Your task to perform on an android device: change notifications settings Image 0: 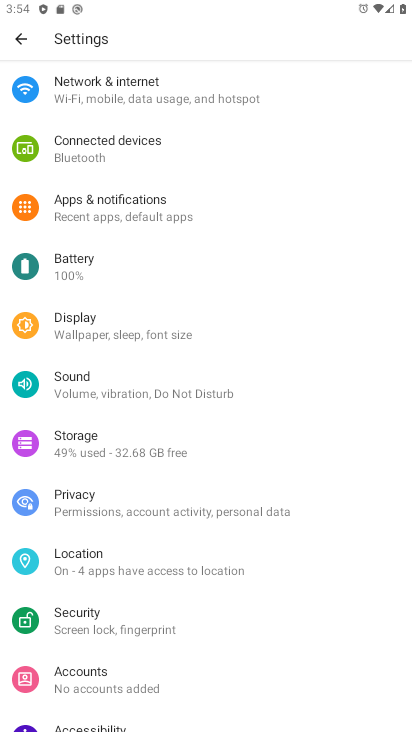
Step 0: press home button
Your task to perform on an android device: change notifications settings Image 1: 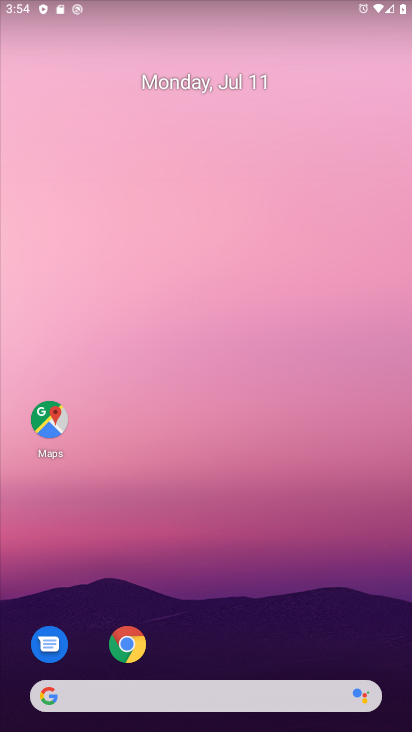
Step 1: drag from (246, 580) to (223, 156)
Your task to perform on an android device: change notifications settings Image 2: 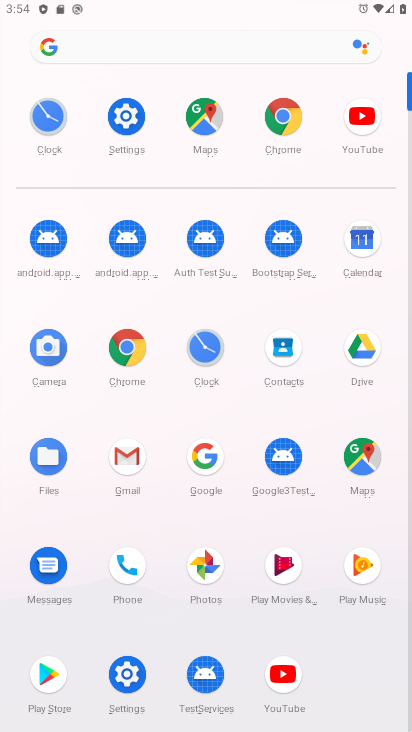
Step 2: click (130, 123)
Your task to perform on an android device: change notifications settings Image 3: 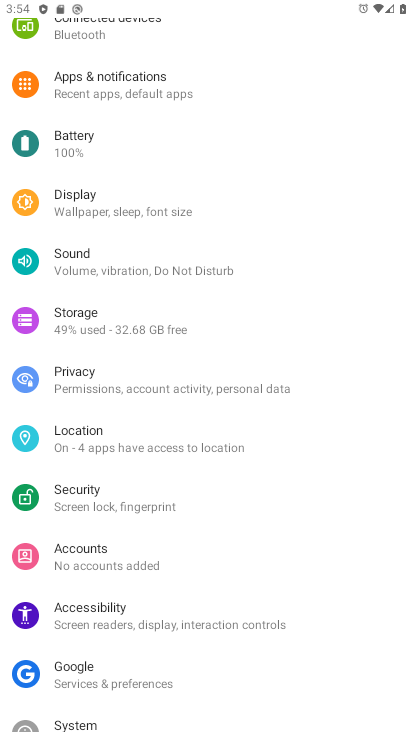
Step 3: click (128, 82)
Your task to perform on an android device: change notifications settings Image 4: 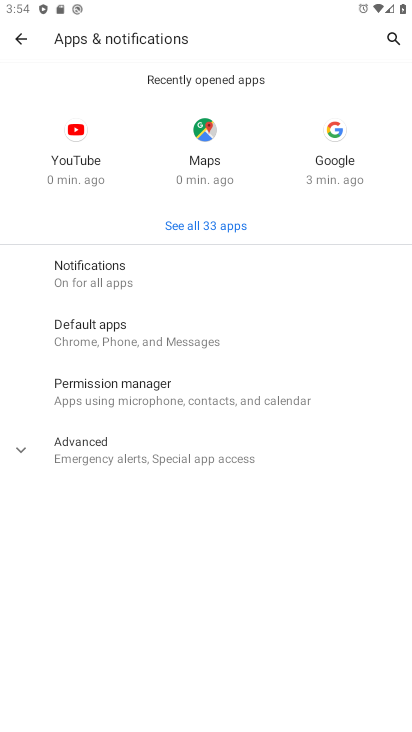
Step 4: click (127, 275)
Your task to perform on an android device: change notifications settings Image 5: 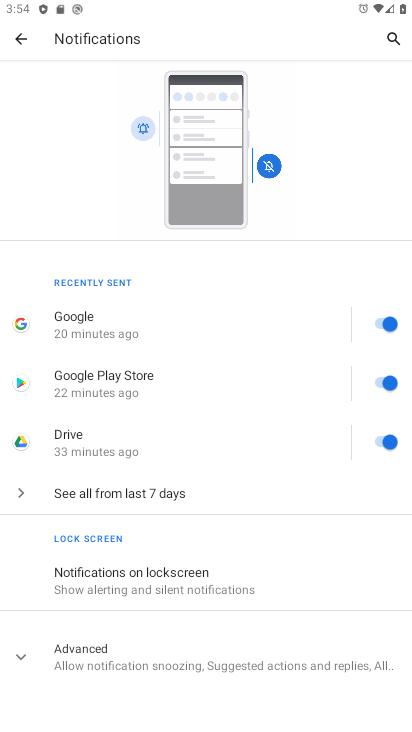
Step 5: click (391, 442)
Your task to perform on an android device: change notifications settings Image 6: 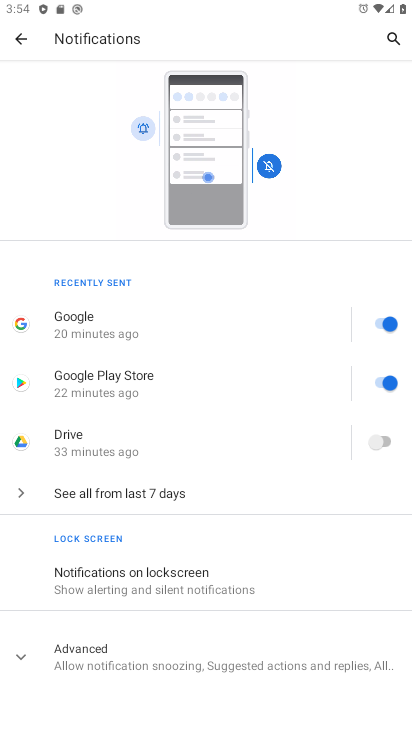
Step 6: click (385, 438)
Your task to perform on an android device: change notifications settings Image 7: 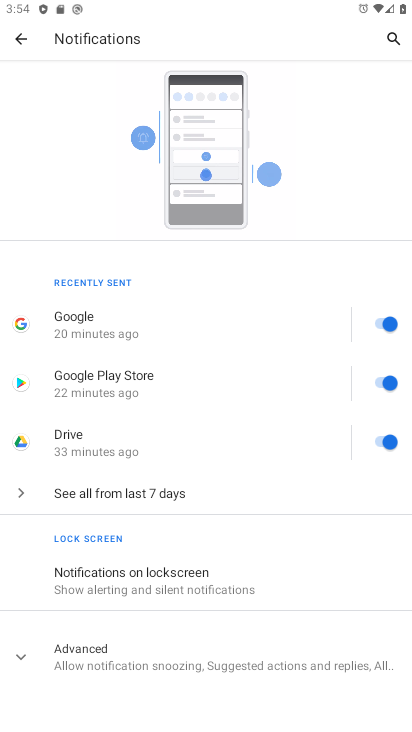
Step 7: click (392, 325)
Your task to perform on an android device: change notifications settings Image 8: 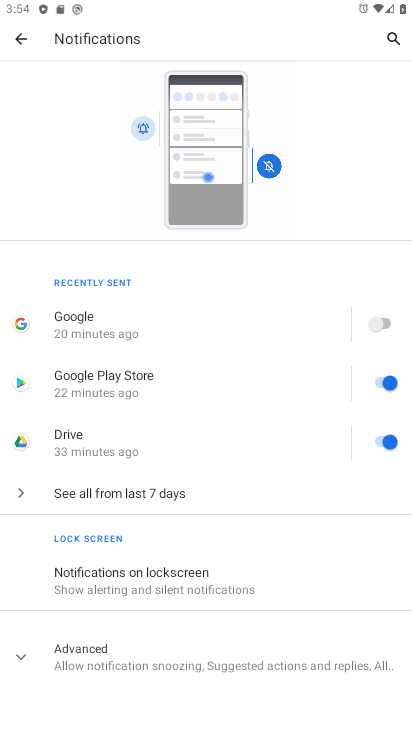
Step 8: task complete